Your task to perform on an android device: move an email to a new category in the gmail app Image 0: 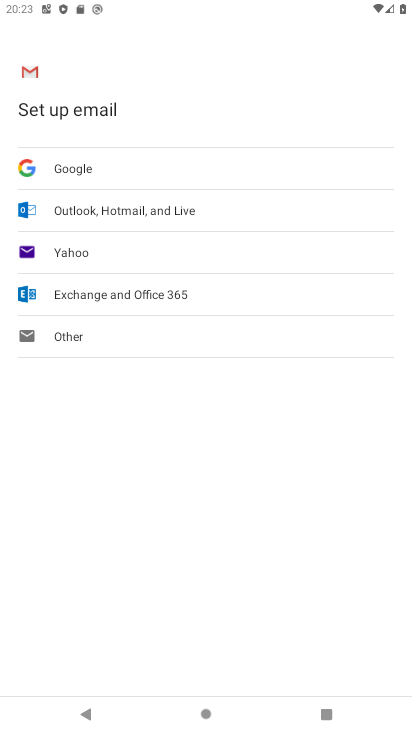
Step 0: press home button
Your task to perform on an android device: move an email to a new category in the gmail app Image 1: 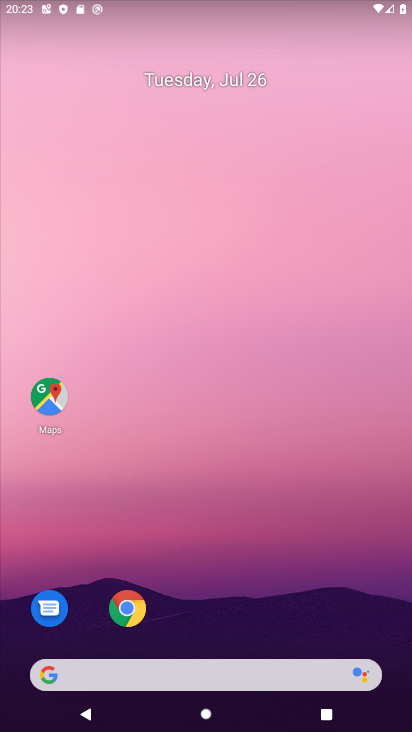
Step 1: drag from (34, 716) to (191, 143)
Your task to perform on an android device: move an email to a new category in the gmail app Image 2: 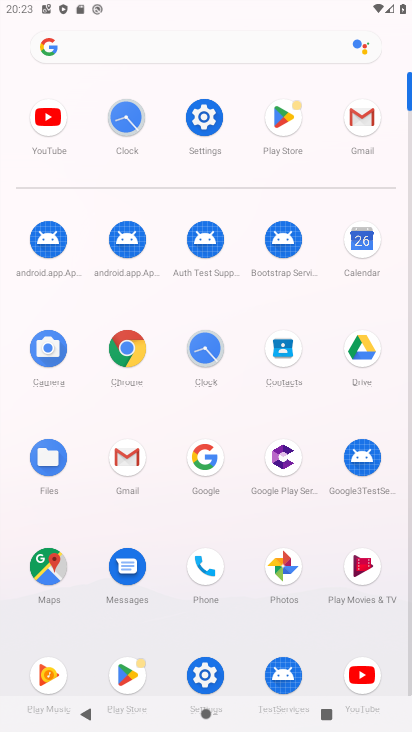
Step 2: click (136, 471)
Your task to perform on an android device: move an email to a new category in the gmail app Image 3: 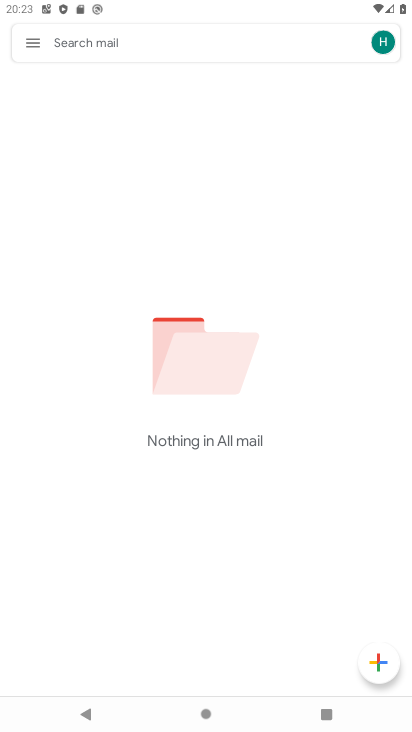
Step 3: click (32, 45)
Your task to perform on an android device: move an email to a new category in the gmail app Image 4: 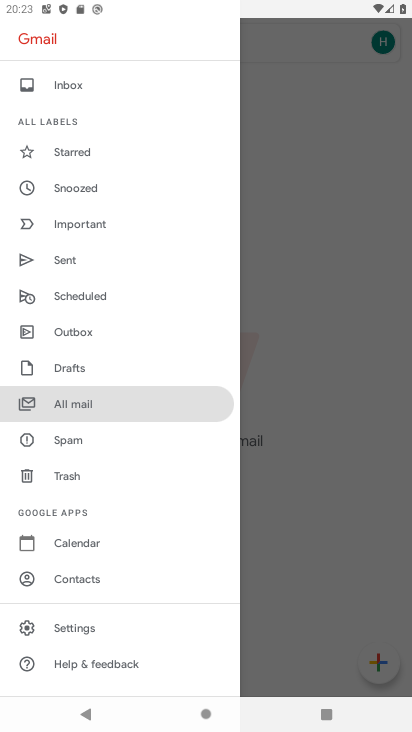
Step 4: click (103, 85)
Your task to perform on an android device: move an email to a new category in the gmail app Image 5: 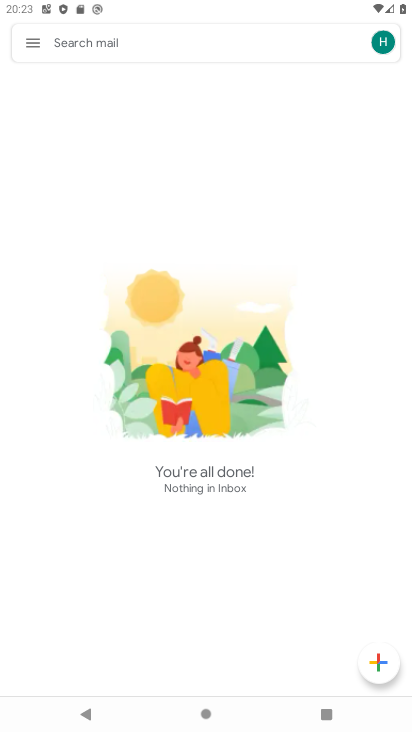
Step 5: task complete